Your task to perform on an android device: set the timer Image 0: 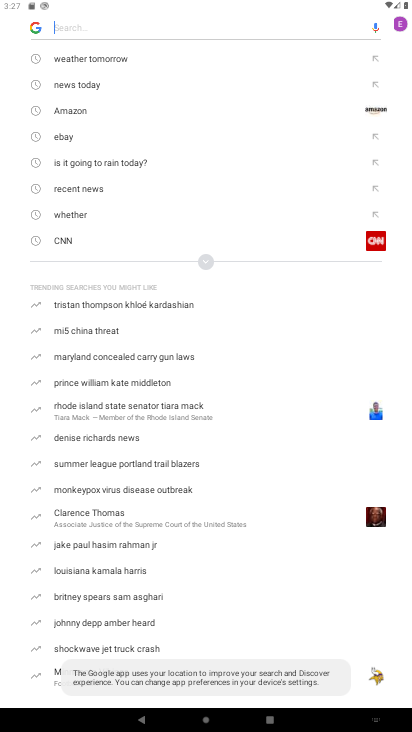
Step 0: press home button
Your task to perform on an android device: set the timer Image 1: 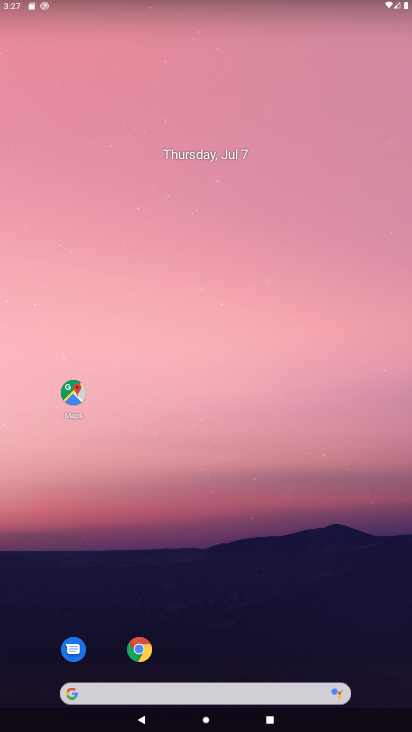
Step 1: drag from (164, 654) to (245, 13)
Your task to perform on an android device: set the timer Image 2: 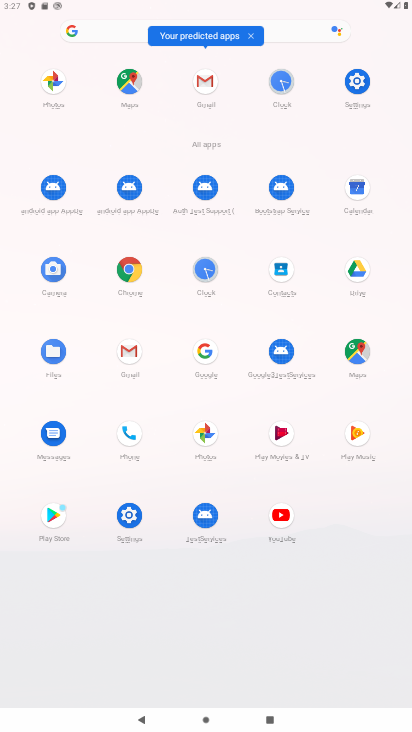
Step 2: click (216, 277)
Your task to perform on an android device: set the timer Image 3: 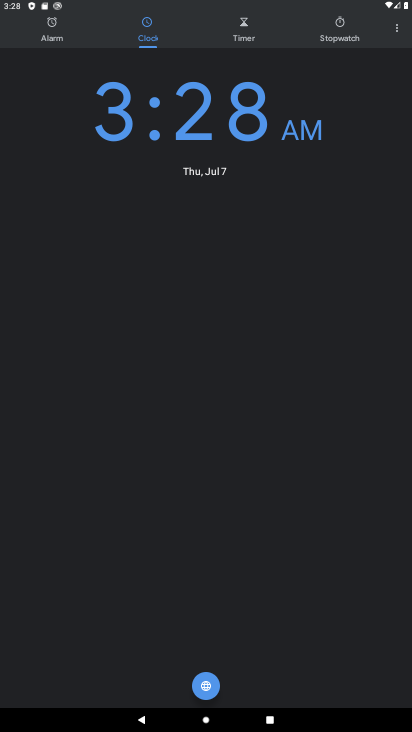
Step 3: click (245, 29)
Your task to perform on an android device: set the timer Image 4: 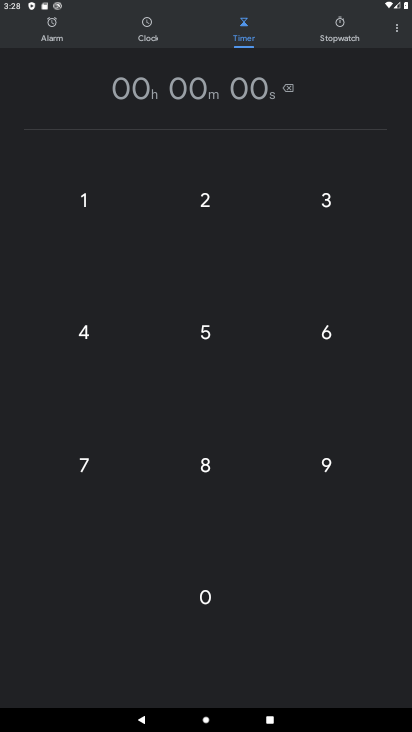
Step 4: click (234, 199)
Your task to perform on an android device: set the timer Image 5: 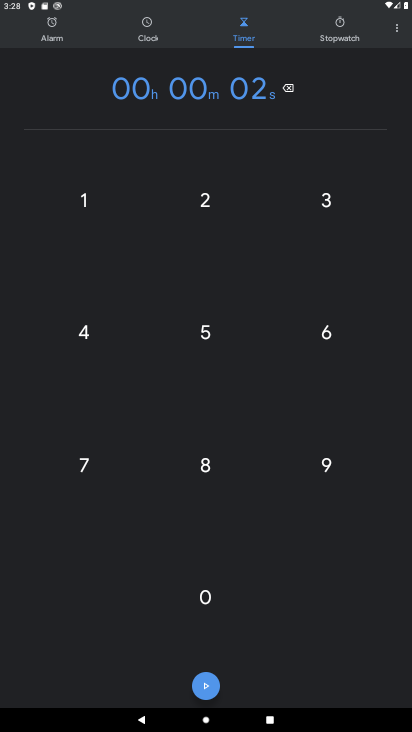
Step 5: click (204, 590)
Your task to perform on an android device: set the timer Image 6: 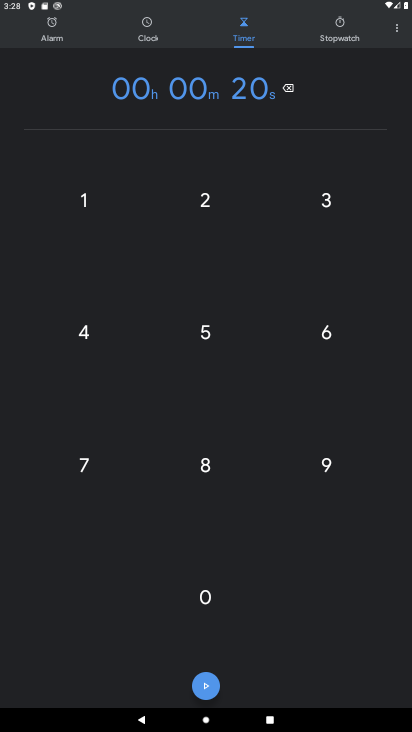
Step 6: click (211, 202)
Your task to perform on an android device: set the timer Image 7: 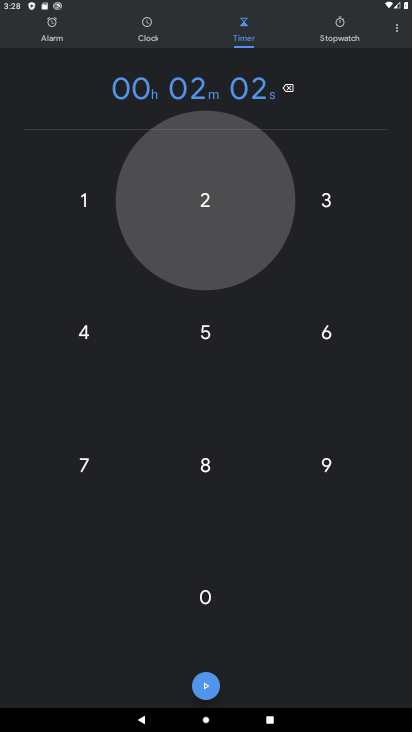
Step 7: click (320, 213)
Your task to perform on an android device: set the timer Image 8: 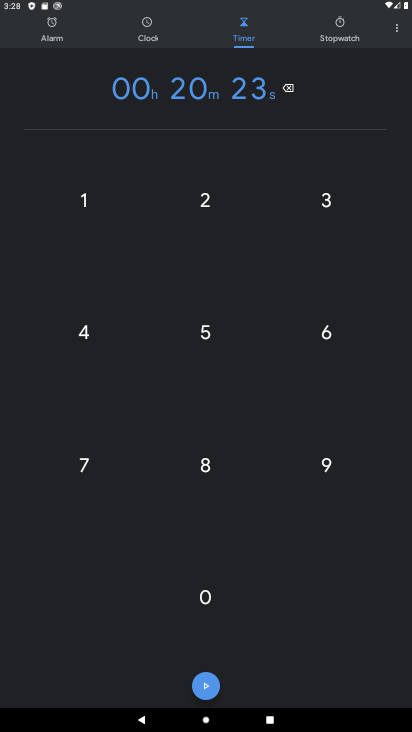
Step 8: click (212, 686)
Your task to perform on an android device: set the timer Image 9: 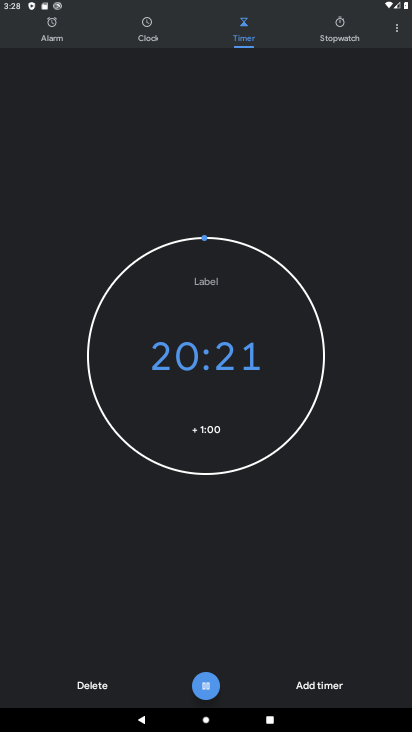
Step 9: task complete